Your task to perform on an android device: Is it going to rain today? Image 0: 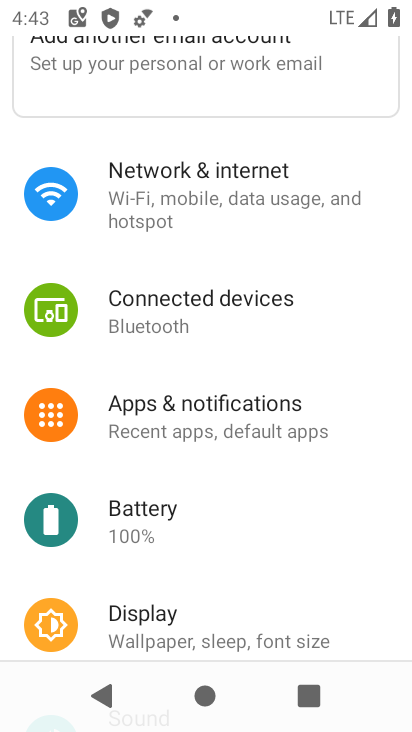
Step 0: press back button
Your task to perform on an android device: Is it going to rain today? Image 1: 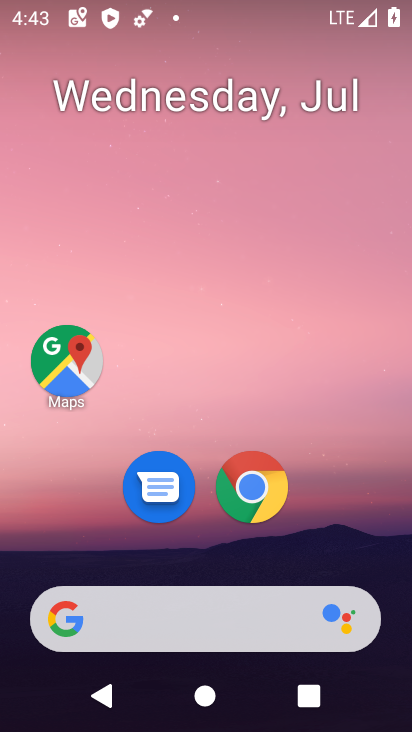
Step 1: drag from (186, 552) to (245, 18)
Your task to perform on an android device: Is it going to rain today? Image 2: 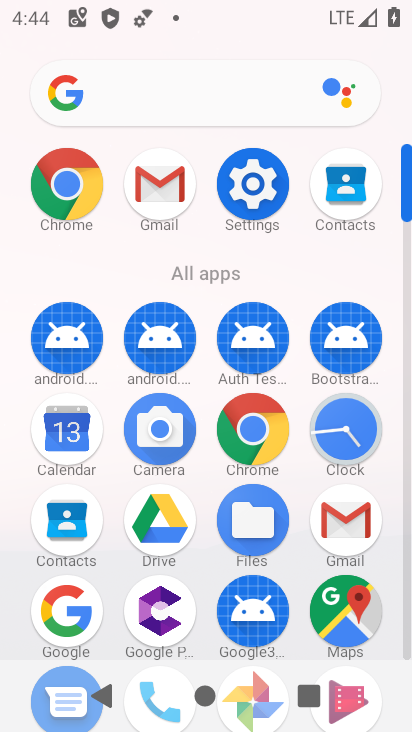
Step 2: click (135, 95)
Your task to perform on an android device: Is it going to rain today? Image 3: 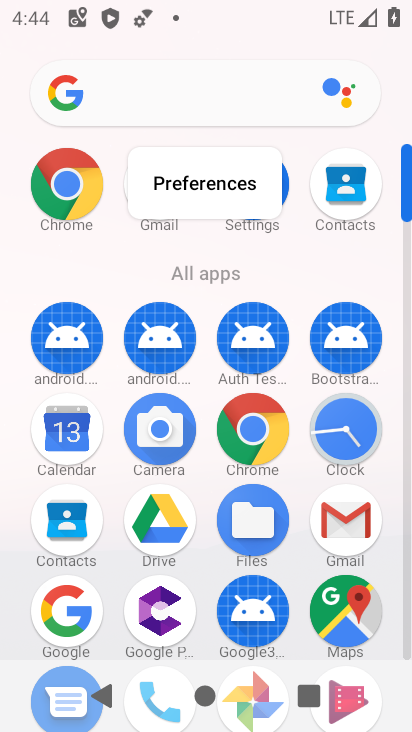
Step 3: click (169, 101)
Your task to perform on an android device: Is it going to rain today? Image 4: 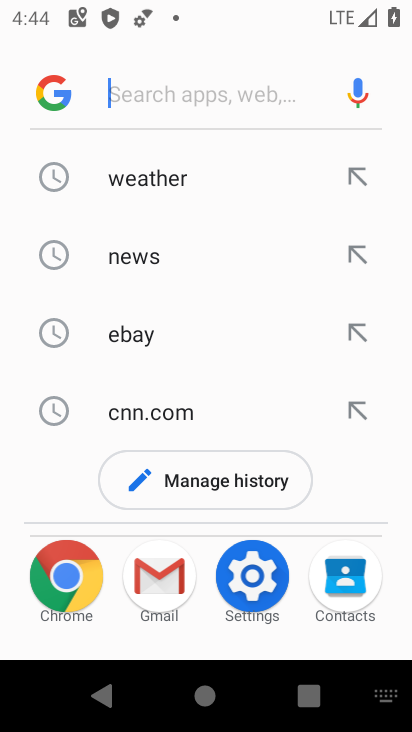
Step 4: click (147, 169)
Your task to perform on an android device: Is it going to rain today? Image 5: 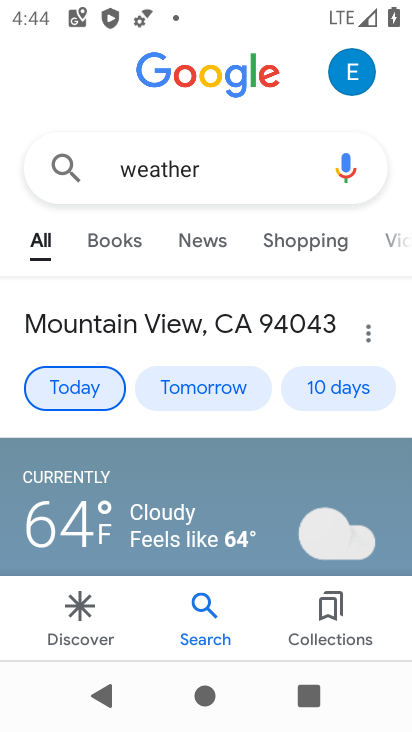
Step 5: task complete